Your task to perform on an android device: Open Android settings Image 0: 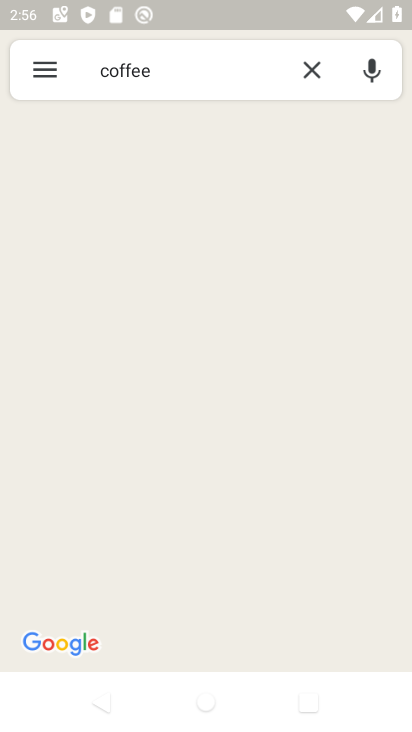
Step 0: drag from (254, 161) to (219, 242)
Your task to perform on an android device: Open Android settings Image 1: 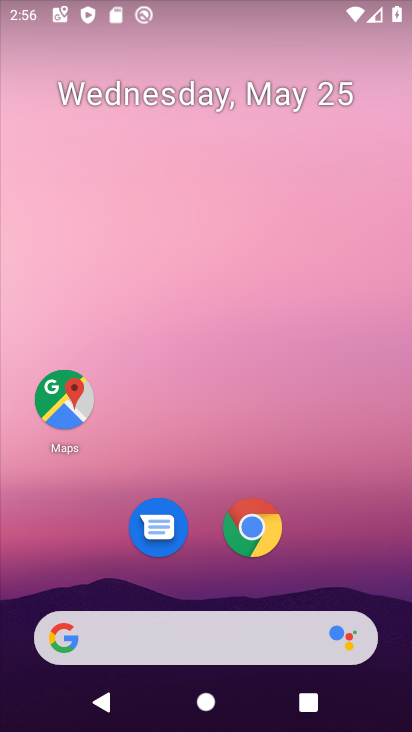
Step 1: drag from (211, 495) to (260, 158)
Your task to perform on an android device: Open Android settings Image 2: 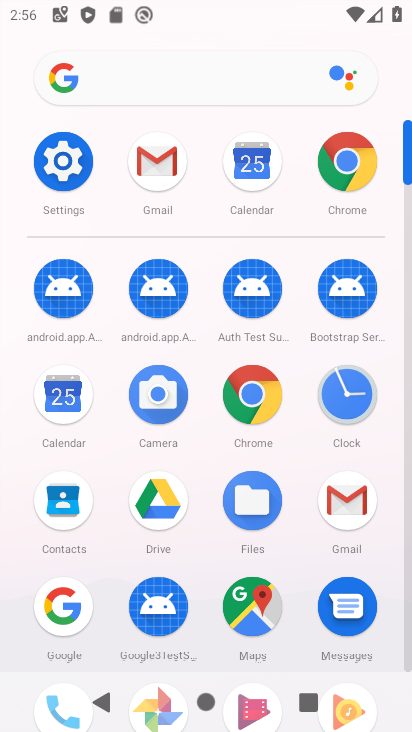
Step 2: click (56, 168)
Your task to perform on an android device: Open Android settings Image 3: 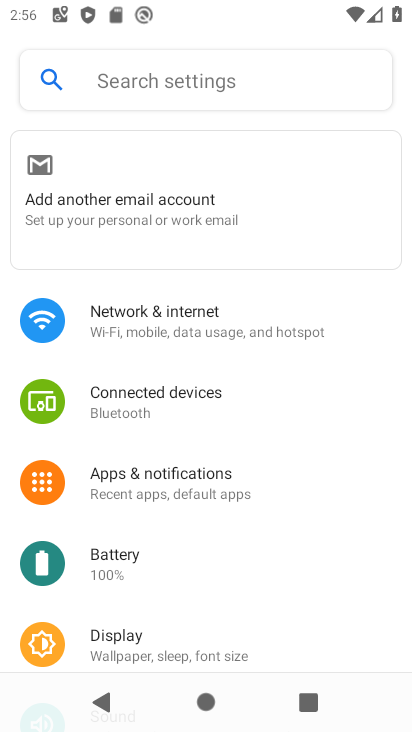
Step 3: drag from (197, 660) to (264, 218)
Your task to perform on an android device: Open Android settings Image 4: 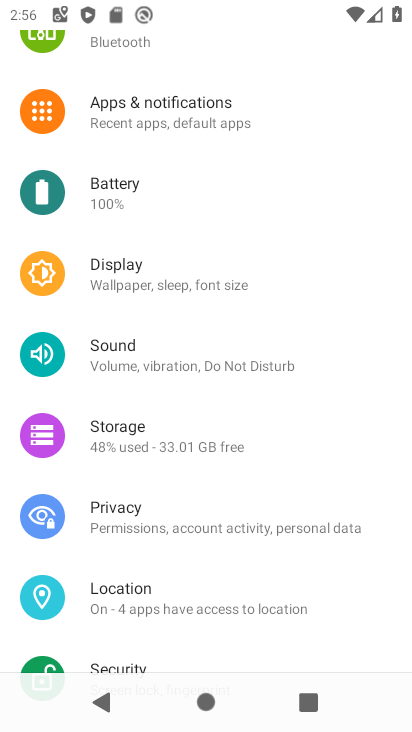
Step 4: drag from (241, 534) to (317, 55)
Your task to perform on an android device: Open Android settings Image 5: 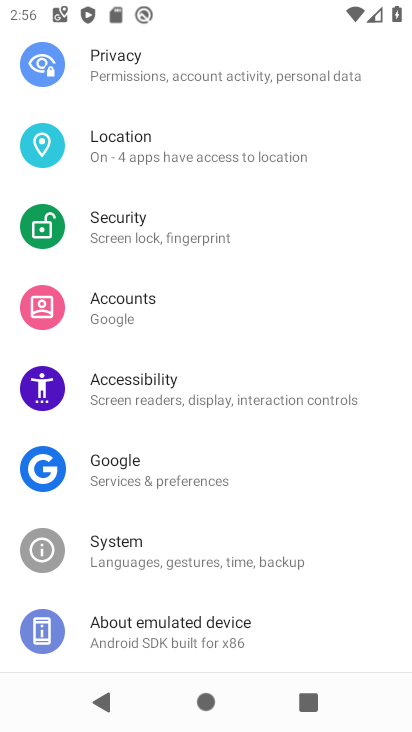
Step 5: click (134, 622)
Your task to perform on an android device: Open Android settings Image 6: 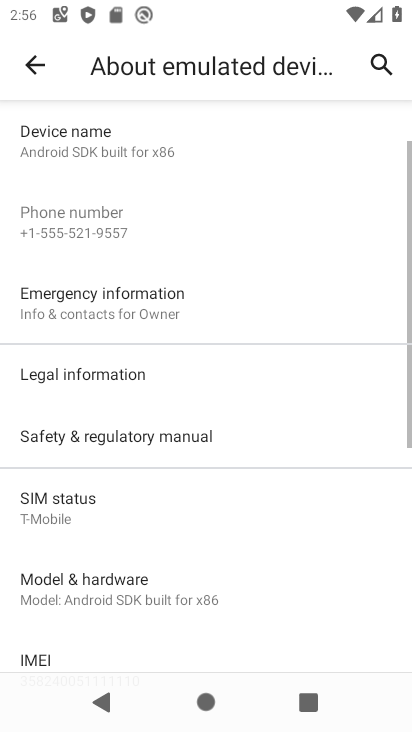
Step 6: drag from (195, 602) to (197, 292)
Your task to perform on an android device: Open Android settings Image 7: 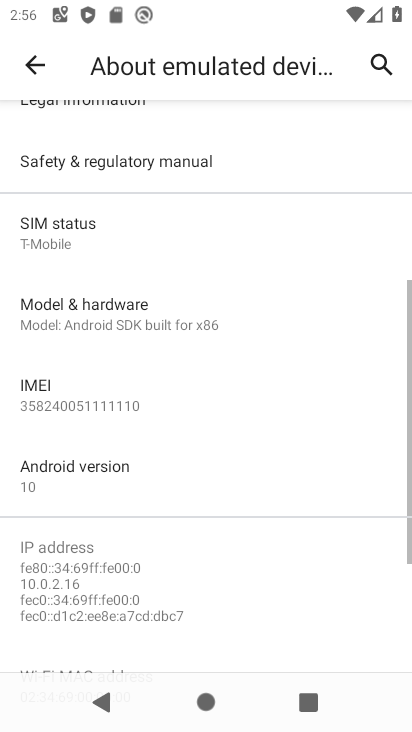
Step 7: click (103, 486)
Your task to perform on an android device: Open Android settings Image 8: 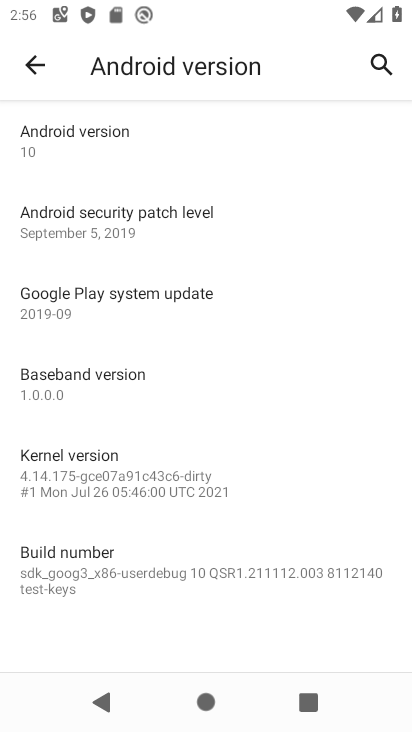
Step 8: drag from (278, 411) to (323, 0)
Your task to perform on an android device: Open Android settings Image 9: 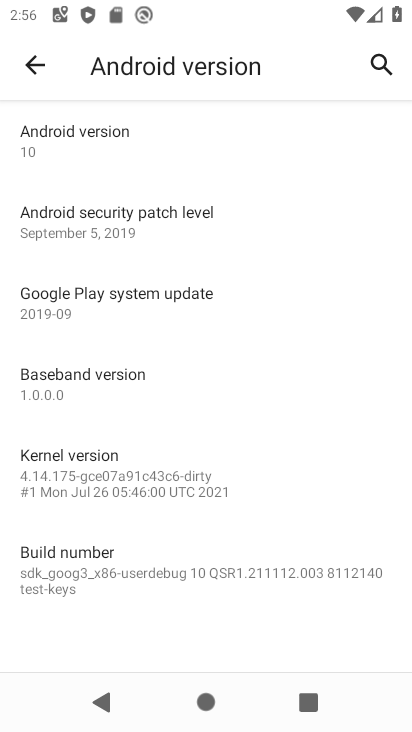
Step 9: drag from (297, 172) to (279, 638)
Your task to perform on an android device: Open Android settings Image 10: 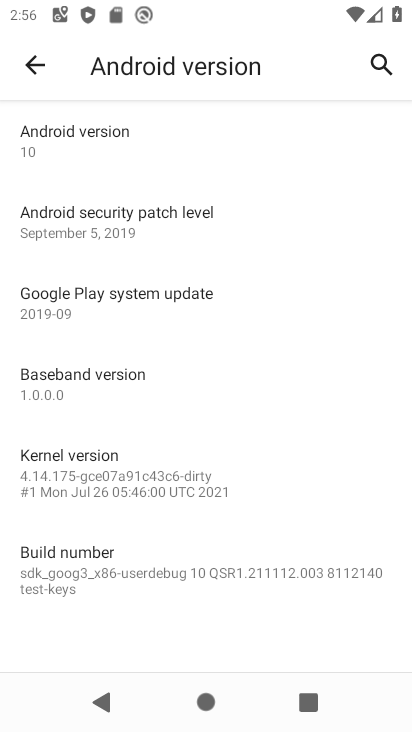
Step 10: click (172, 145)
Your task to perform on an android device: Open Android settings Image 11: 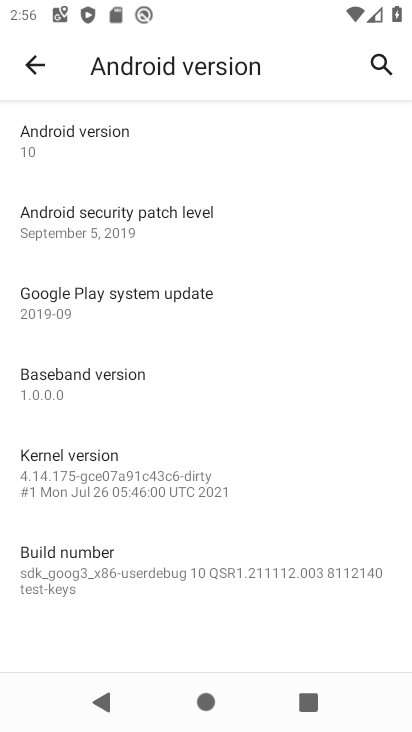
Step 11: task complete